Your task to perform on an android device: Open Google Image 0: 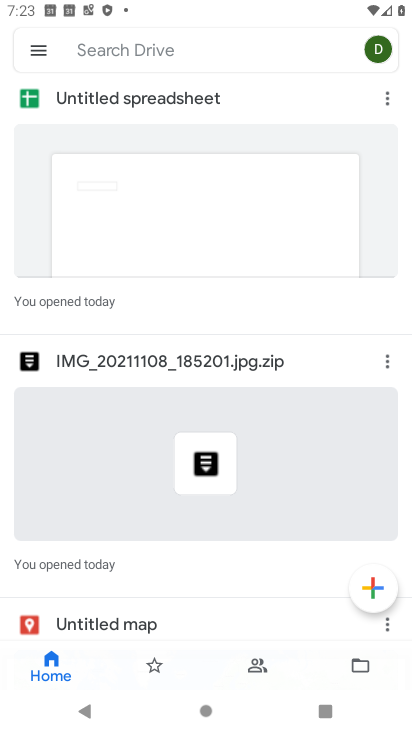
Step 0: press home button
Your task to perform on an android device: Open Google Image 1: 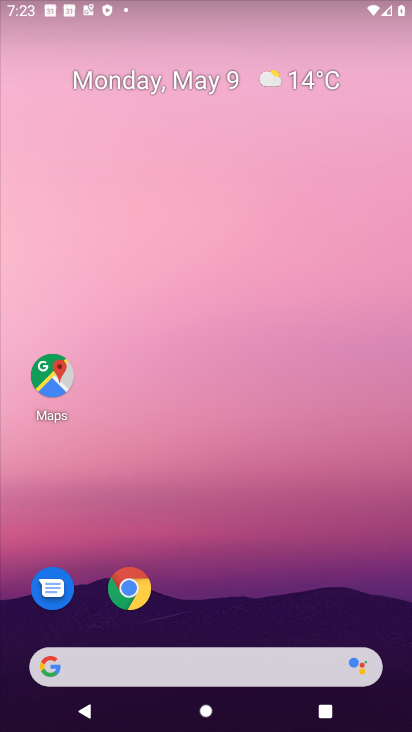
Step 1: drag from (340, 617) to (287, 17)
Your task to perform on an android device: Open Google Image 2: 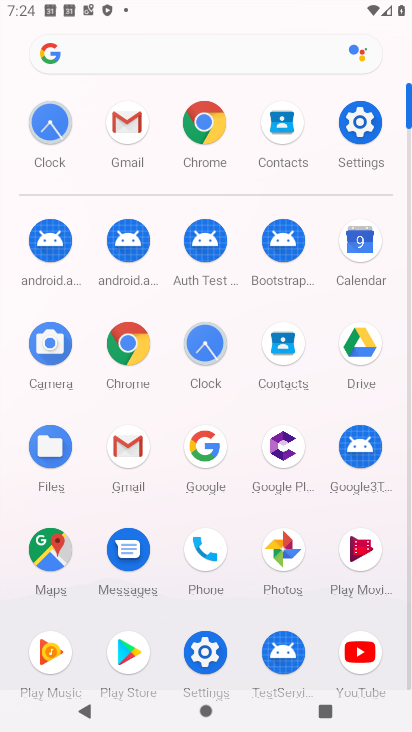
Step 2: click (200, 454)
Your task to perform on an android device: Open Google Image 3: 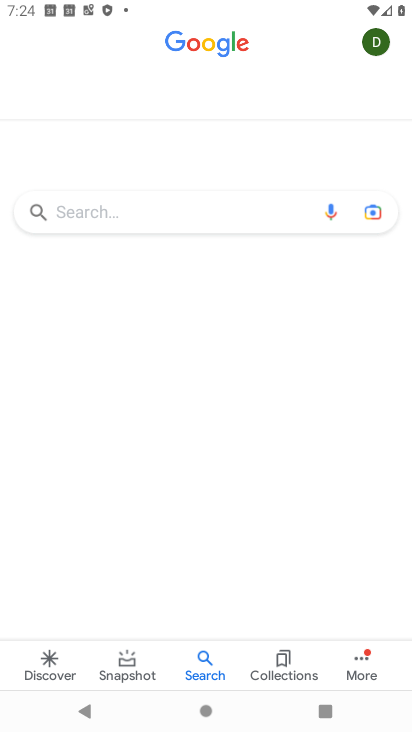
Step 3: task complete